Your task to perform on an android device: Go to CNN.com Image 0: 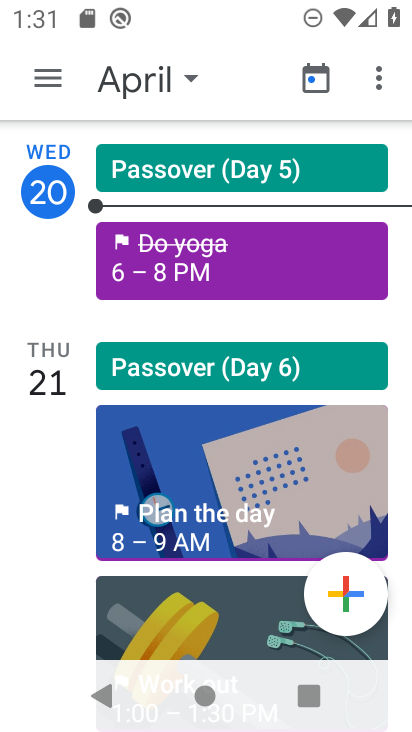
Step 0: press home button
Your task to perform on an android device: Go to CNN.com Image 1: 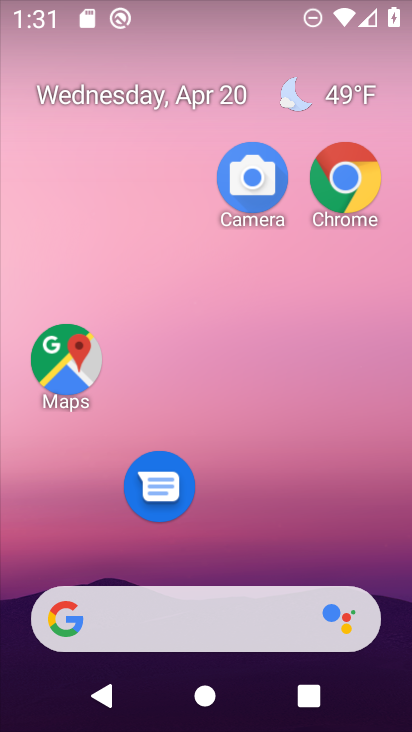
Step 1: drag from (262, 662) to (260, 187)
Your task to perform on an android device: Go to CNN.com Image 2: 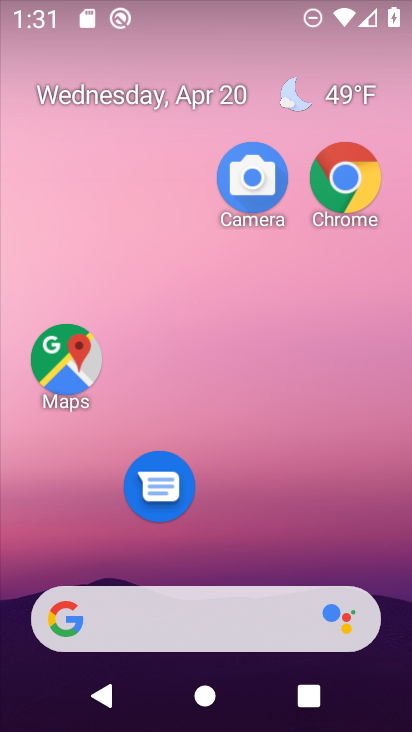
Step 2: drag from (258, 655) to (376, 0)
Your task to perform on an android device: Go to CNN.com Image 3: 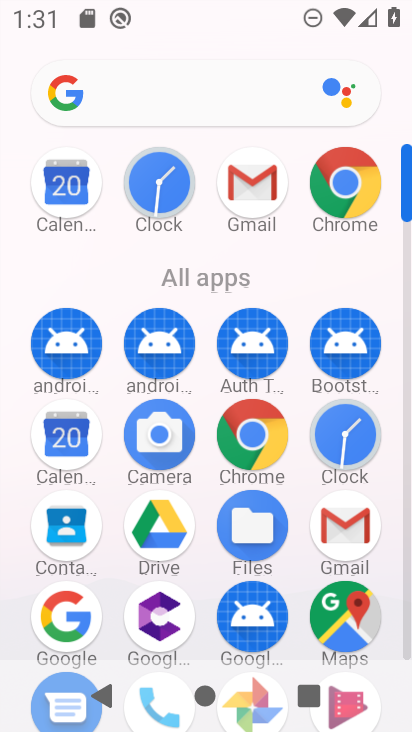
Step 3: click (256, 423)
Your task to perform on an android device: Go to CNN.com Image 4: 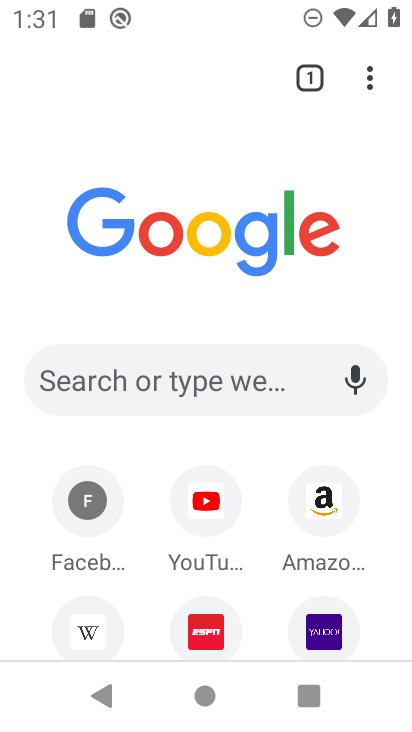
Step 4: click (190, 366)
Your task to perform on an android device: Go to CNN.com Image 5: 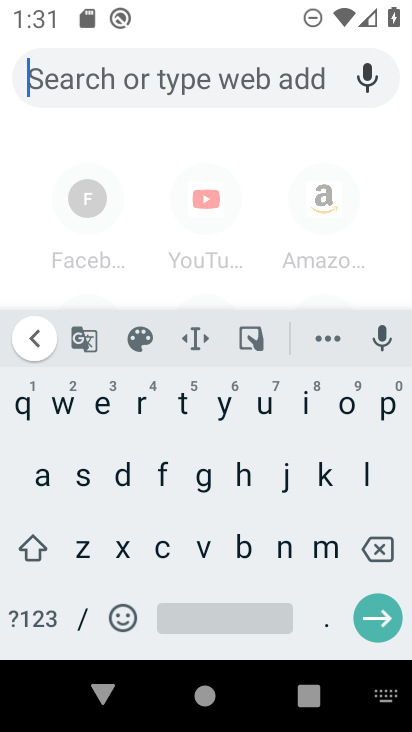
Step 5: click (156, 547)
Your task to perform on an android device: Go to CNN.com Image 6: 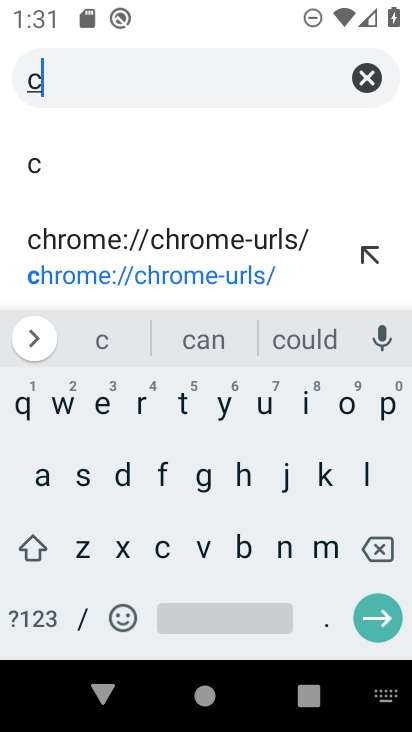
Step 6: click (279, 546)
Your task to perform on an android device: Go to CNN.com Image 7: 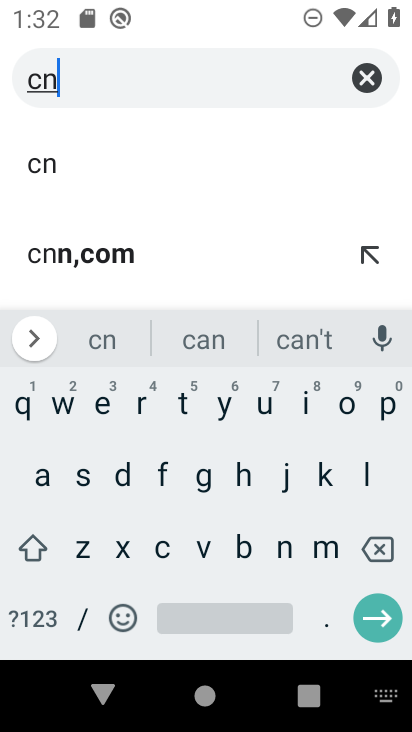
Step 7: click (287, 536)
Your task to perform on an android device: Go to CNN.com Image 8: 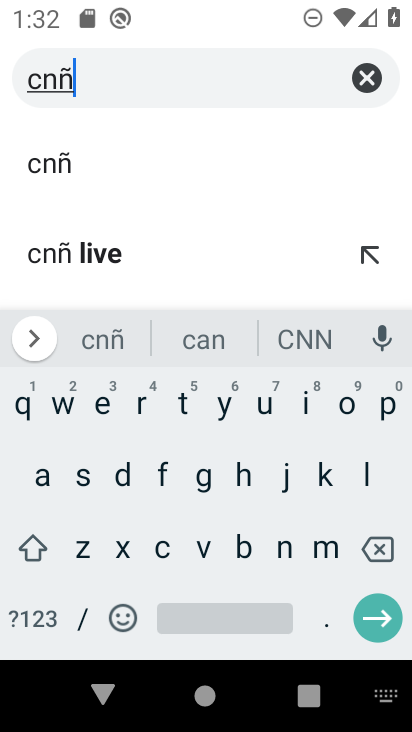
Step 8: click (377, 543)
Your task to perform on an android device: Go to CNN.com Image 9: 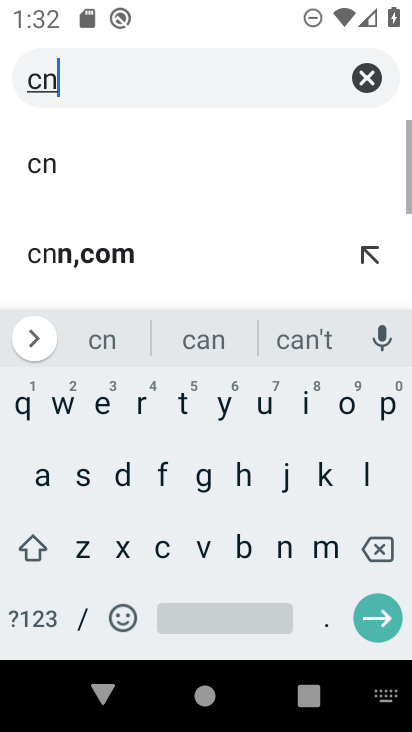
Step 9: click (280, 554)
Your task to perform on an android device: Go to CNN.com Image 10: 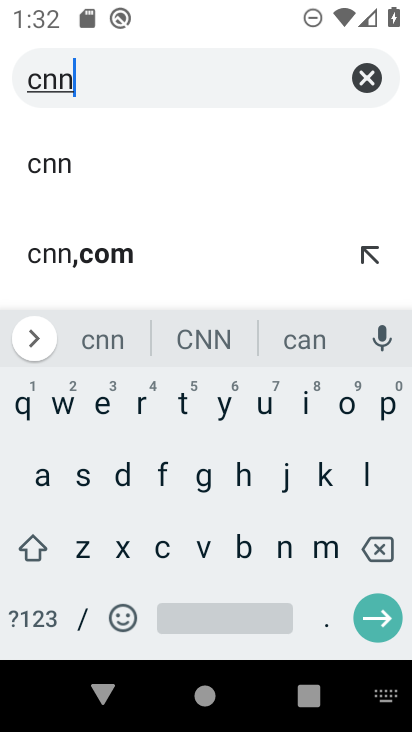
Step 10: click (323, 620)
Your task to perform on an android device: Go to CNN.com Image 11: 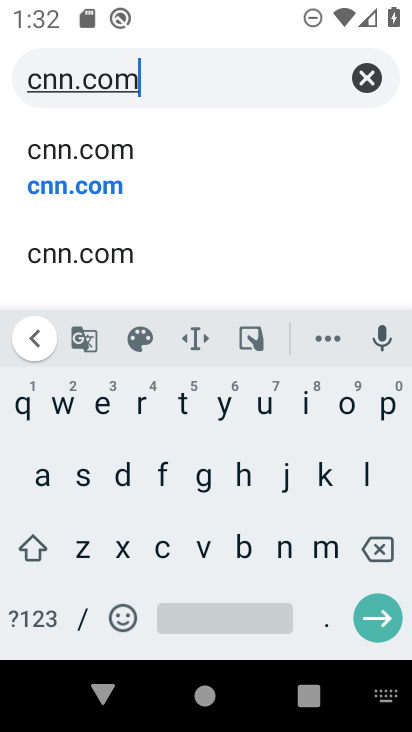
Step 11: click (144, 169)
Your task to perform on an android device: Go to CNN.com Image 12: 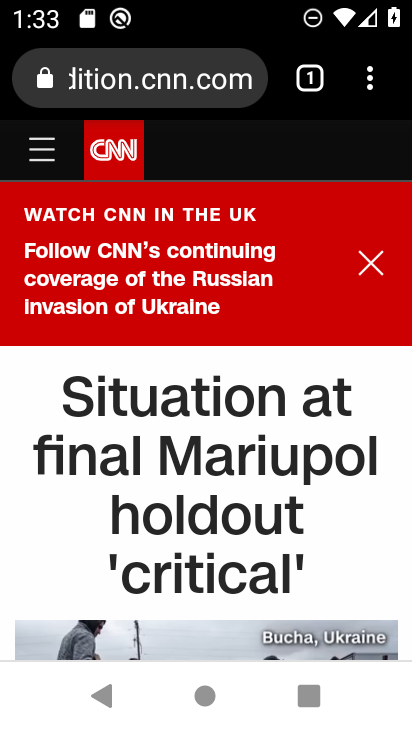
Step 12: task complete